Your task to perform on an android device: check storage Image 0: 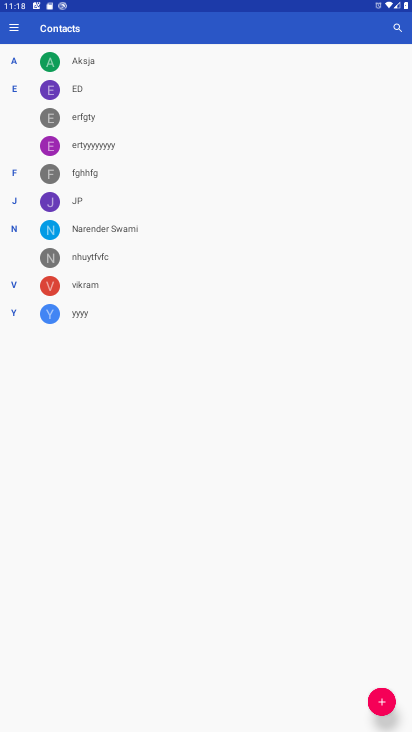
Step 0: press home button
Your task to perform on an android device: check storage Image 1: 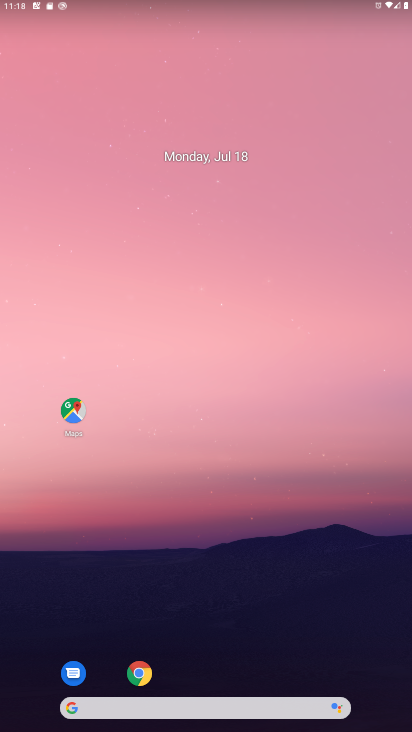
Step 1: drag from (185, 670) to (171, 127)
Your task to perform on an android device: check storage Image 2: 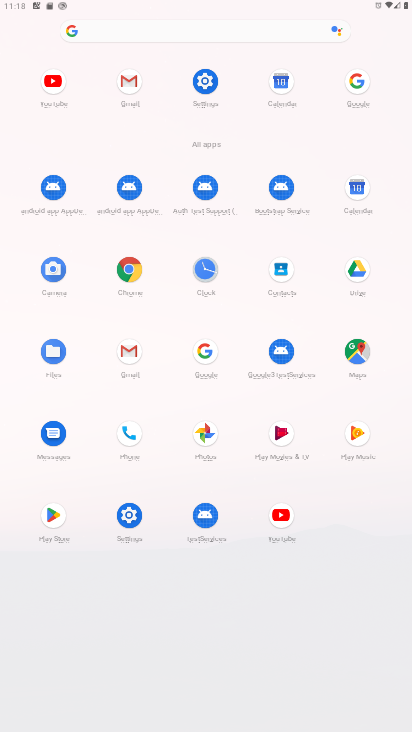
Step 2: click (201, 90)
Your task to perform on an android device: check storage Image 3: 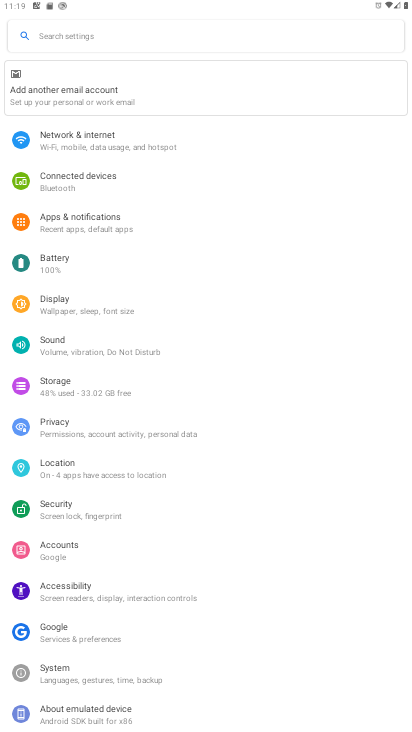
Step 3: click (101, 393)
Your task to perform on an android device: check storage Image 4: 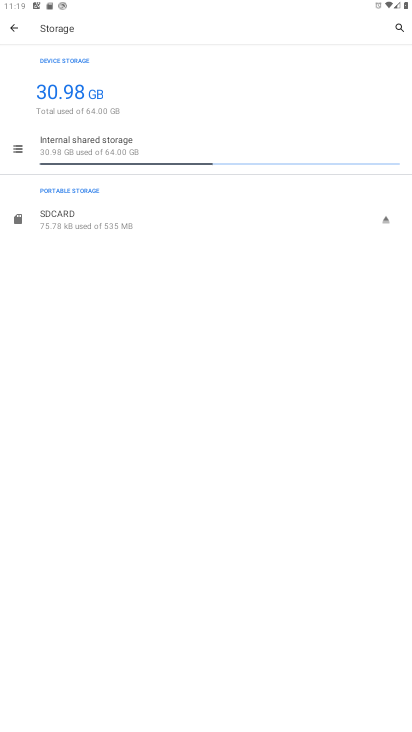
Step 4: click (129, 138)
Your task to perform on an android device: check storage Image 5: 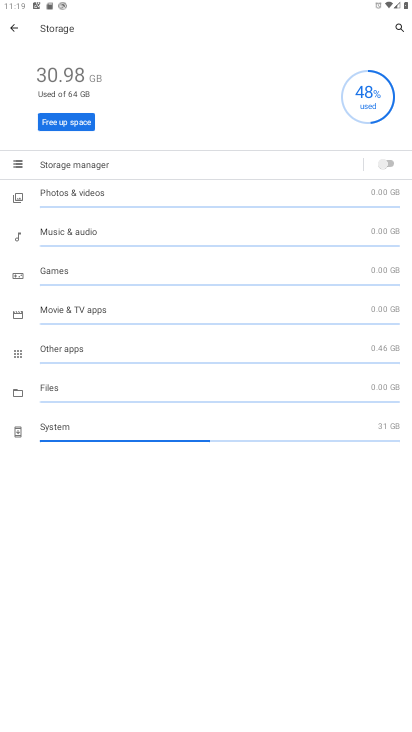
Step 5: task complete